Your task to perform on an android device: clear all cookies in the chrome app Image 0: 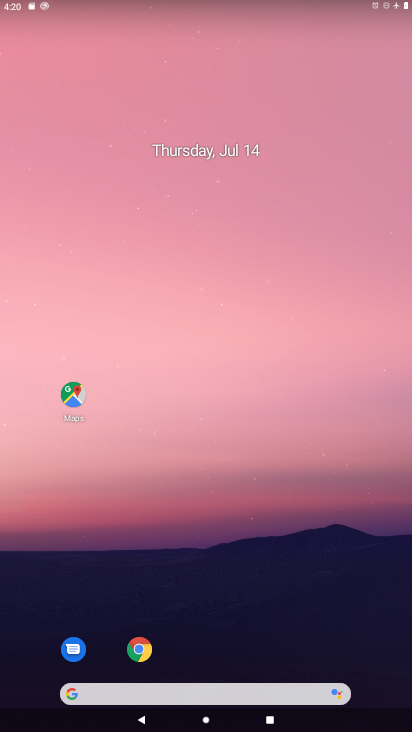
Step 0: drag from (221, 612) to (258, 186)
Your task to perform on an android device: clear all cookies in the chrome app Image 1: 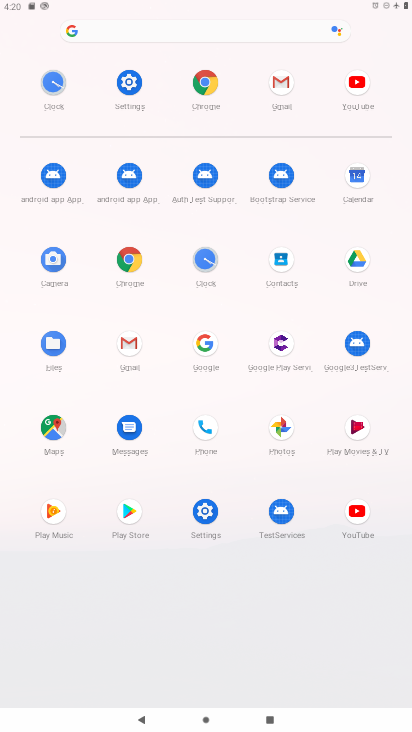
Step 1: click (132, 266)
Your task to perform on an android device: clear all cookies in the chrome app Image 2: 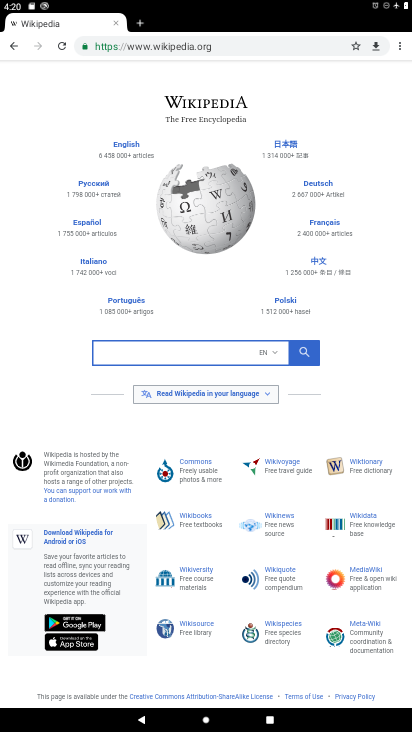
Step 2: click (396, 41)
Your task to perform on an android device: clear all cookies in the chrome app Image 3: 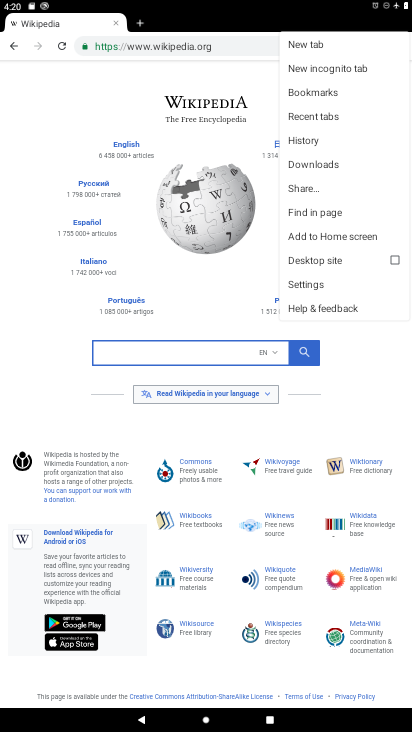
Step 3: click (321, 138)
Your task to perform on an android device: clear all cookies in the chrome app Image 4: 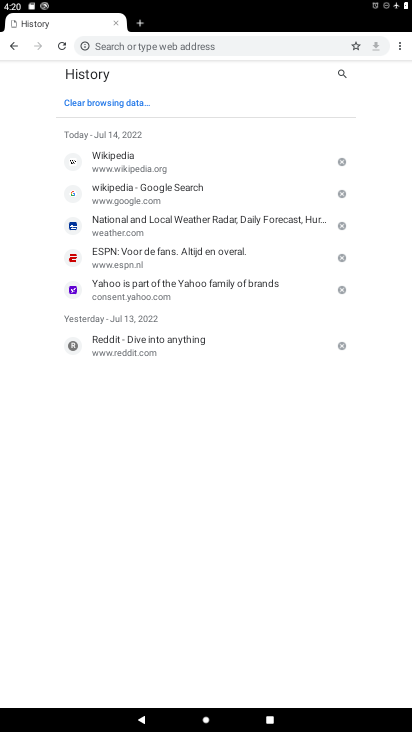
Step 4: click (121, 106)
Your task to perform on an android device: clear all cookies in the chrome app Image 5: 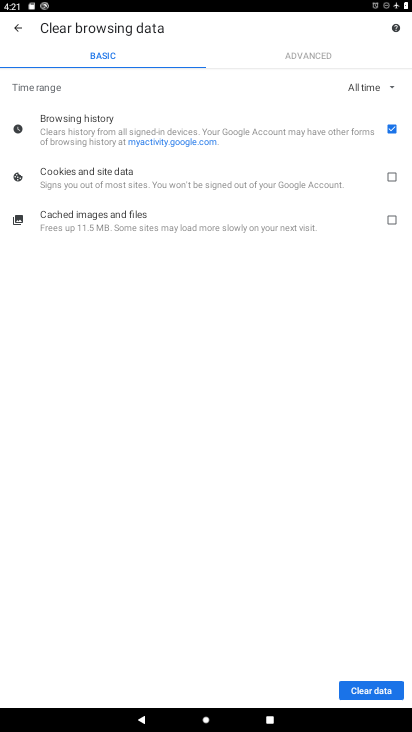
Step 5: click (393, 176)
Your task to perform on an android device: clear all cookies in the chrome app Image 6: 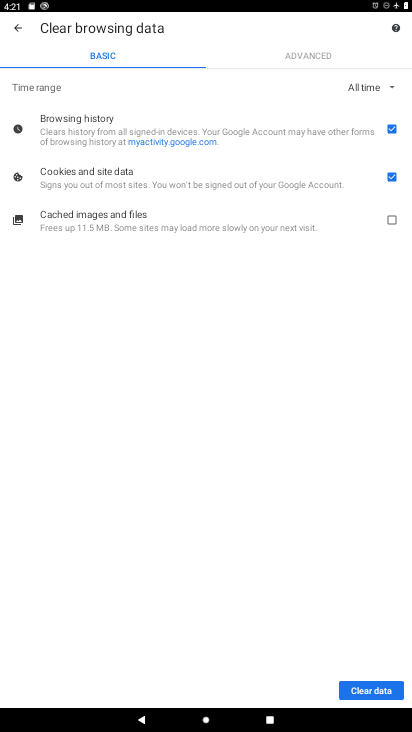
Step 6: click (385, 129)
Your task to perform on an android device: clear all cookies in the chrome app Image 7: 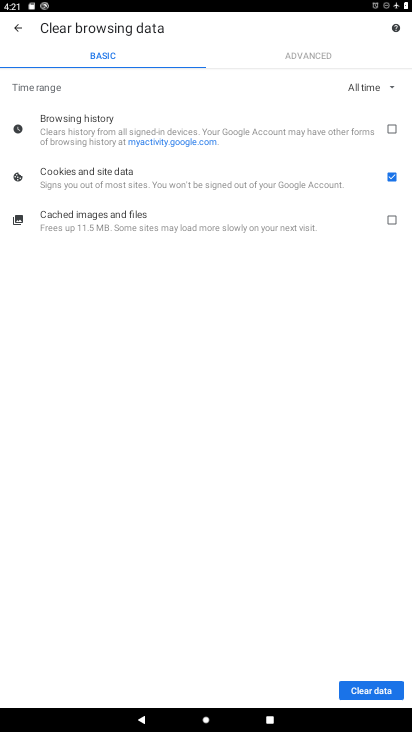
Step 7: click (374, 692)
Your task to perform on an android device: clear all cookies in the chrome app Image 8: 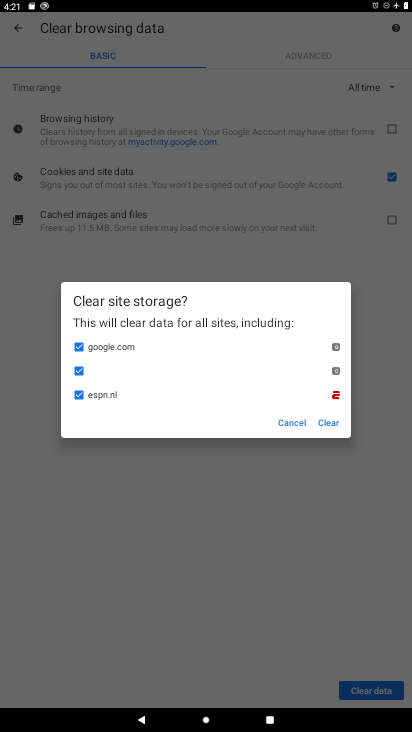
Step 8: click (325, 421)
Your task to perform on an android device: clear all cookies in the chrome app Image 9: 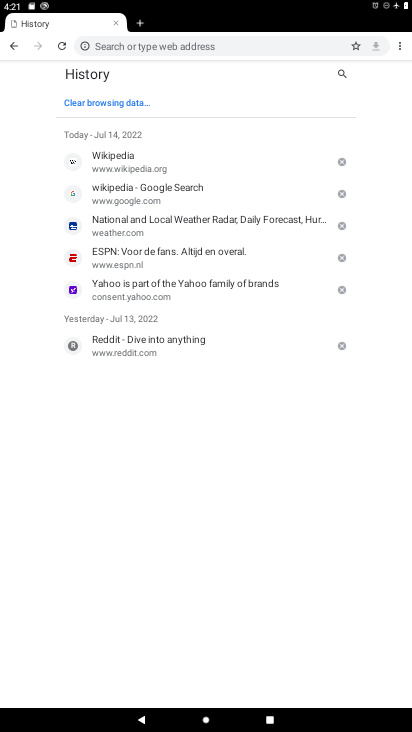
Step 9: task complete